Your task to perform on an android device: Open calendar and show me the first week of next month Image 0: 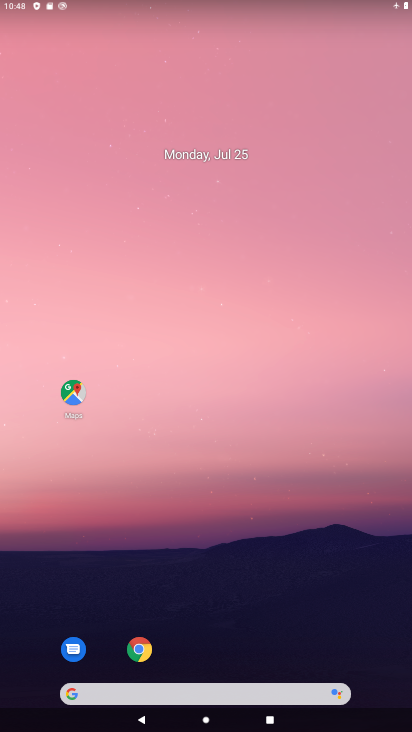
Step 0: drag from (302, 626) to (296, 34)
Your task to perform on an android device: Open calendar and show me the first week of next month Image 1: 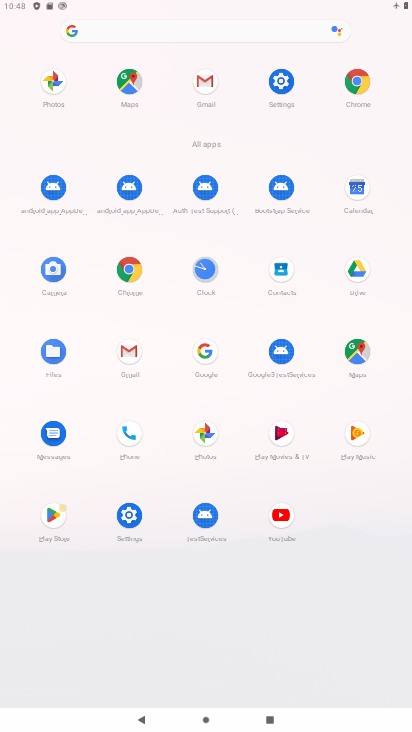
Step 1: click (357, 191)
Your task to perform on an android device: Open calendar and show me the first week of next month Image 2: 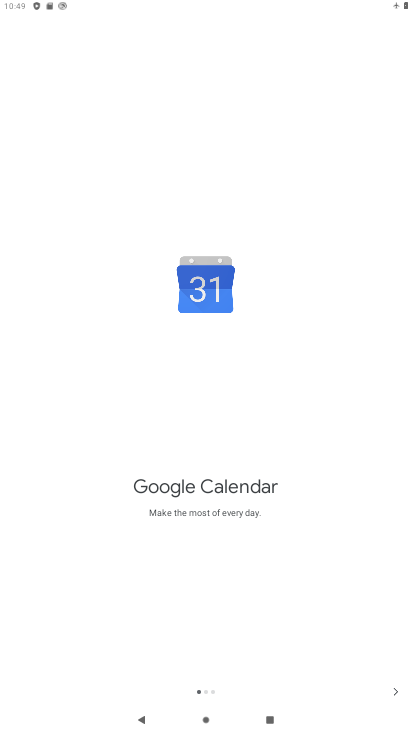
Step 2: click (393, 695)
Your task to perform on an android device: Open calendar and show me the first week of next month Image 3: 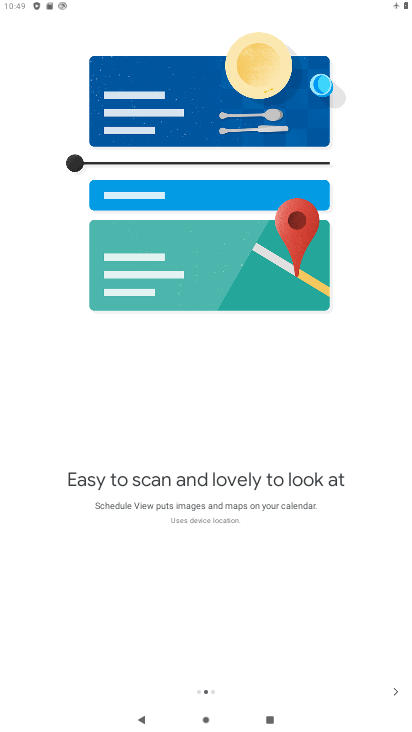
Step 3: click (393, 695)
Your task to perform on an android device: Open calendar and show me the first week of next month Image 4: 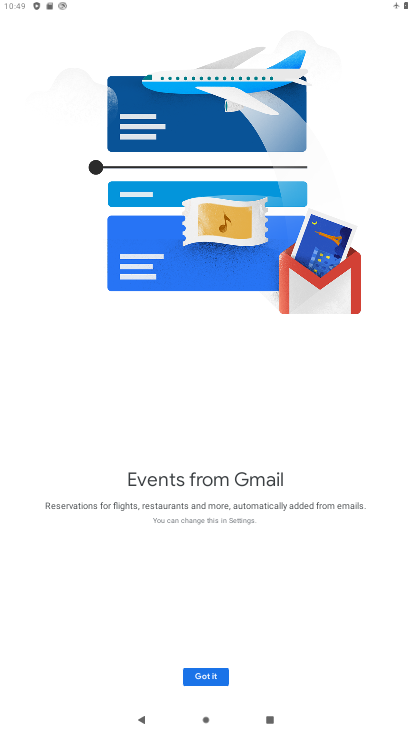
Step 4: click (207, 674)
Your task to perform on an android device: Open calendar and show me the first week of next month Image 5: 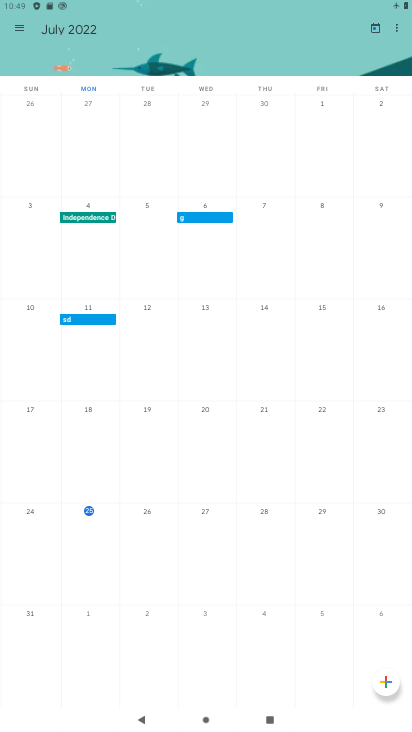
Step 5: click (378, 28)
Your task to perform on an android device: Open calendar and show me the first week of next month Image 6: 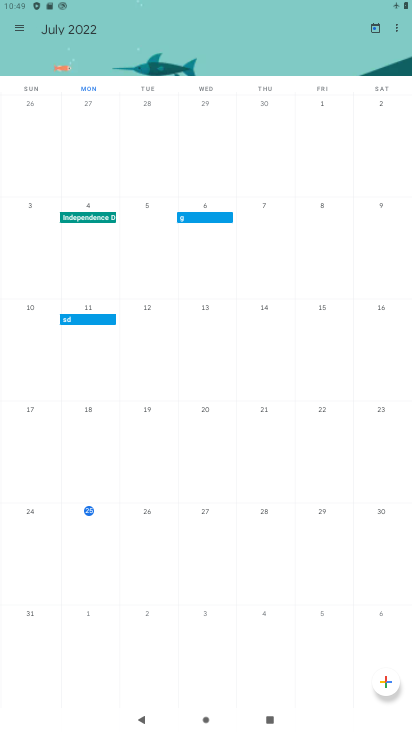
Step 6: click (376, 28)
Your task to perform on an android device: Open calendar and show me the first week of next month Image 7: 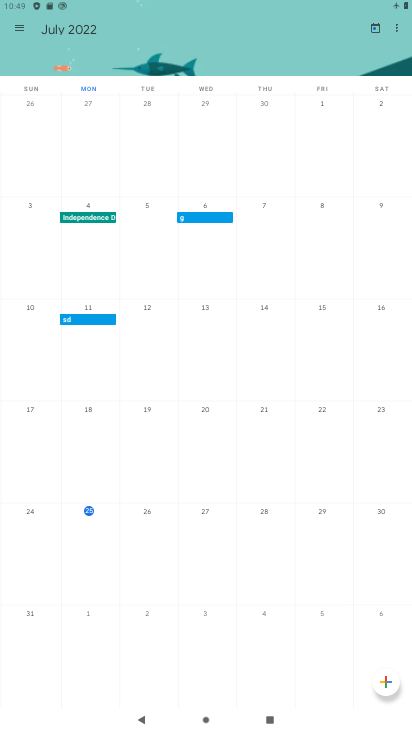
Step 7: click (378, 29)
Your task to perform on an android device: Open calendar and show me the first week of next month Image 8: 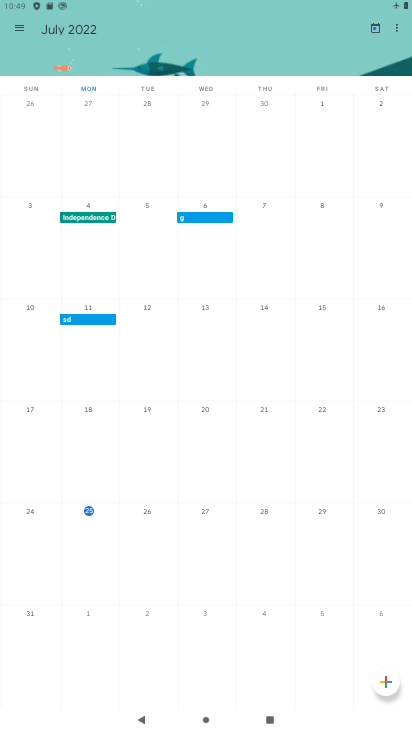
Step 8: drag from (341, 257) to (44, 296)
Your task to perform on an android device: Open calendar and show me the first week of next month Image 9: 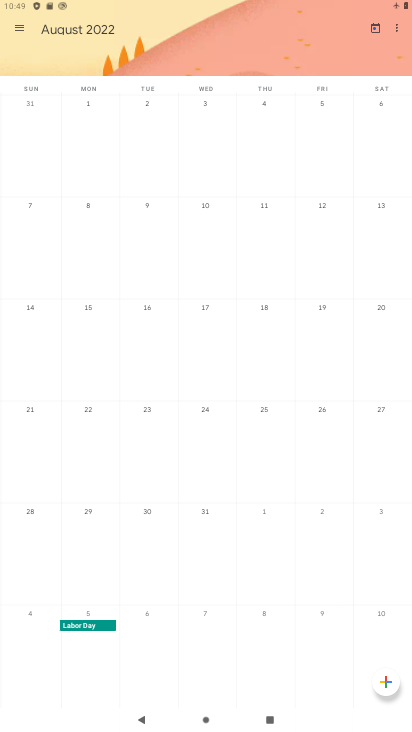
Step 9: click (21, 26)
Your task to perform on an android device: Open calendar and show me the first week of next month Image 10: 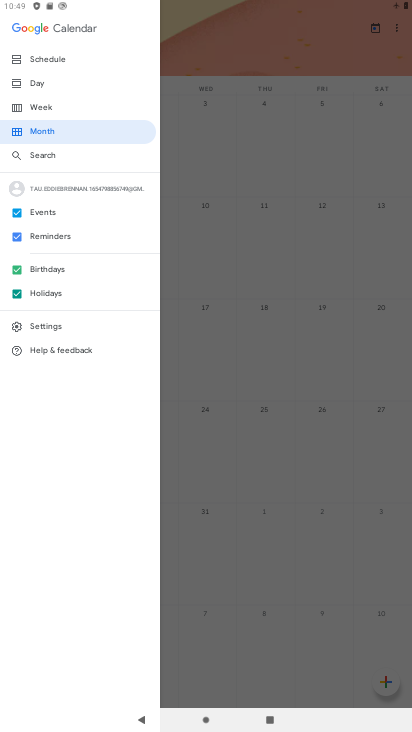
Step 10: click (38, 101)
Your task to perform on an android device: Open calendar and show me the first week of next month Image 11: 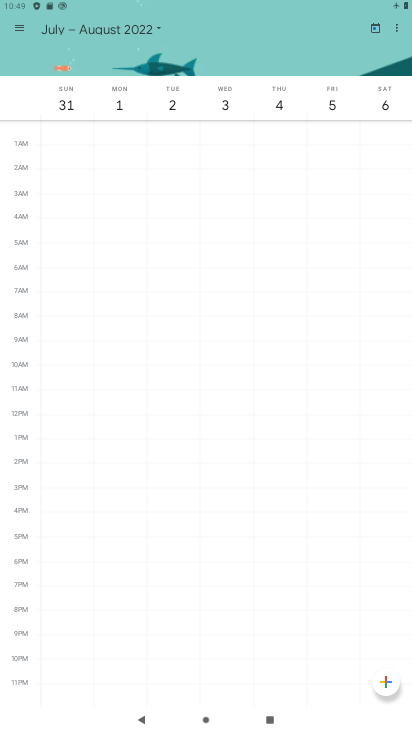
Step 11: task complete